Your task to perform on an android device: turn on data saver in the chrome app Image 0: 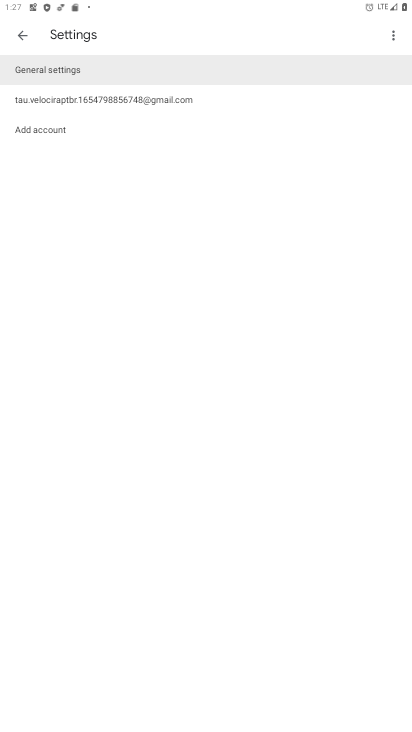
Step 0: press home button
Your task to perform on an android device: turn on data saver in the chrome app Image 1: 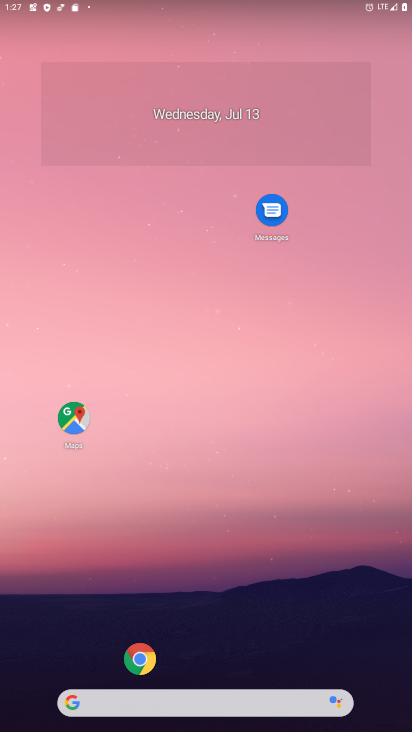
Step 1: click (134, 661)
Your task to perform on an android device: turn on data saver in the chrome app Image 2: 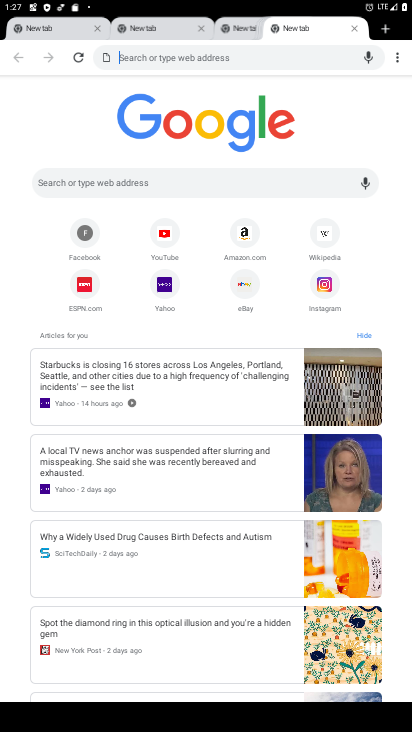
Step 2: click (398, 55)
Your task to perform on an android device: turn on data saver in the chrome app Image 3: 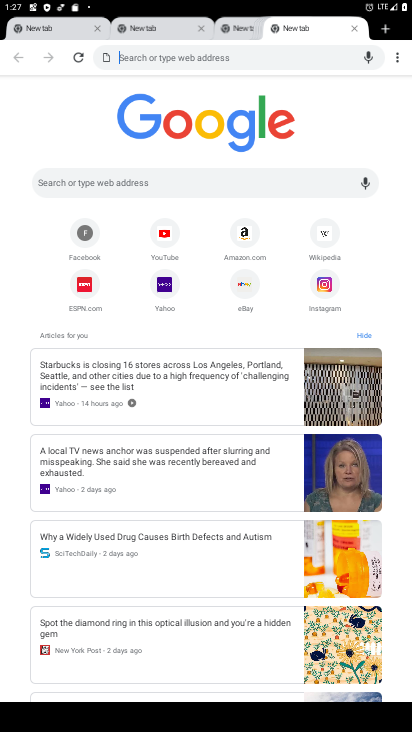
Step 3: task complete